Your task to perform on an android device: Open Android settings Image 0: 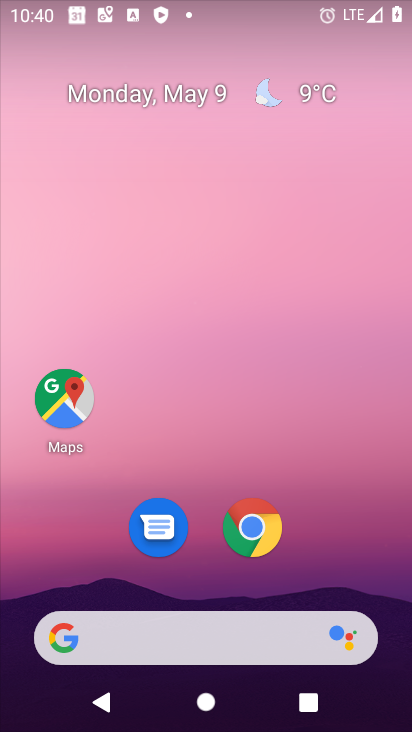
Step 0: drag from (401, 638) to (345, 129)
Your task to perform on an android device: Open Android settings Image 1: 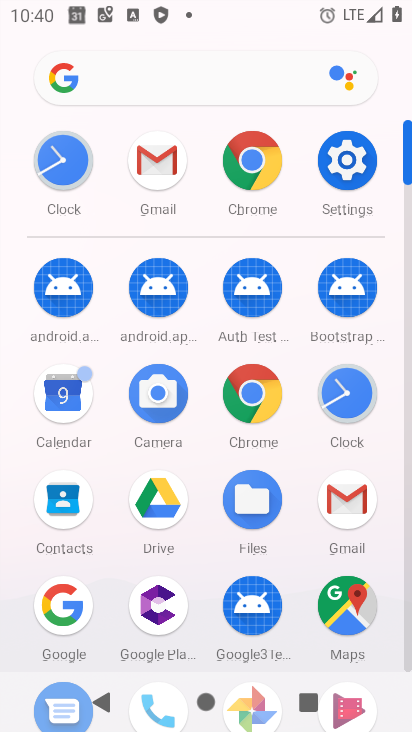
Step 1: click (408, 656)
Your task to perform on an android device: Open Android settings Image 2: 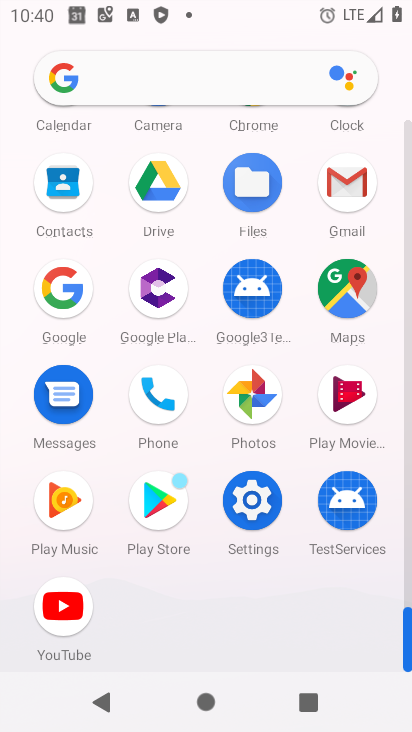
Step 2: click (251, 501)
Your task to perform on an android device: Open Android settings Image 3: 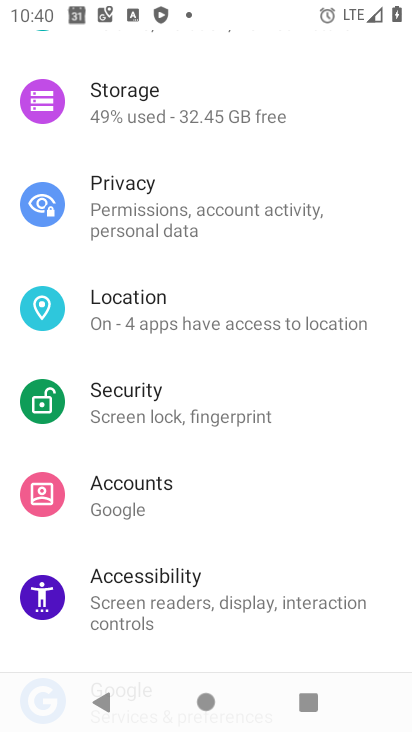
Step 3: drag from (372, 623) to (376, 155)
Your task to perform on an android device: Open Android settings Image 4: 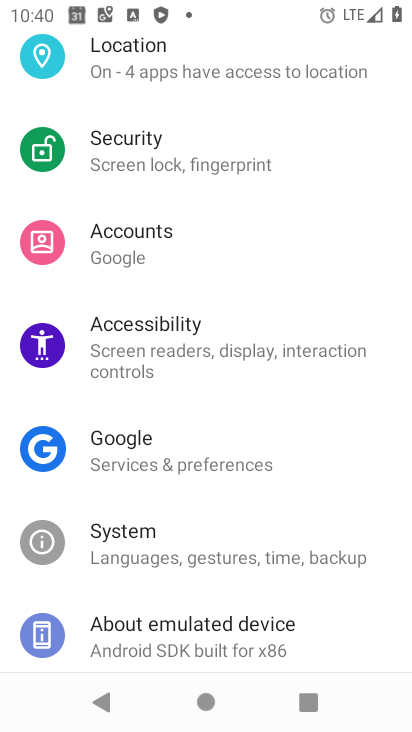
Step 4: drag from (331, 566) to (389, 215)
Your task to perform on an android device: Open Android settings Image 5: 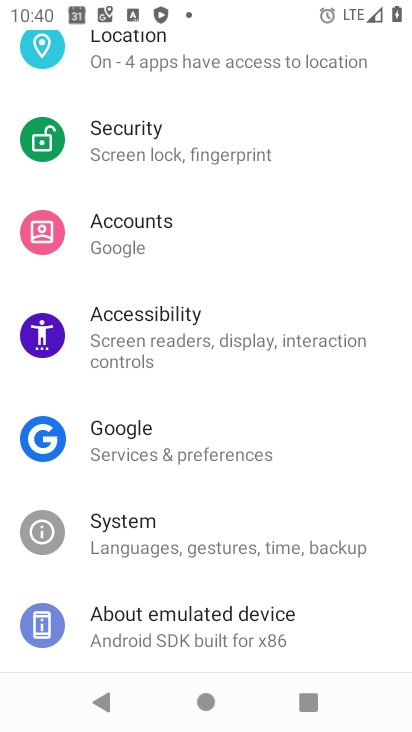
Step 5: click (120, 611)
Your task to perform on an android device: Open Android settings Image 6: 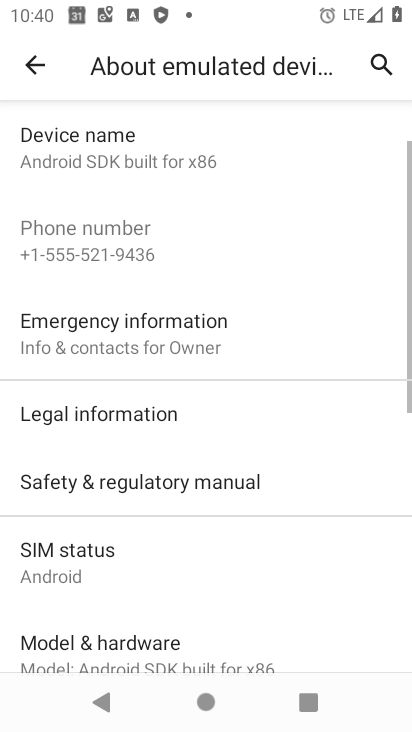
Step 6: task complete